Your task to perform on an android device: Go to location settings Image 0: 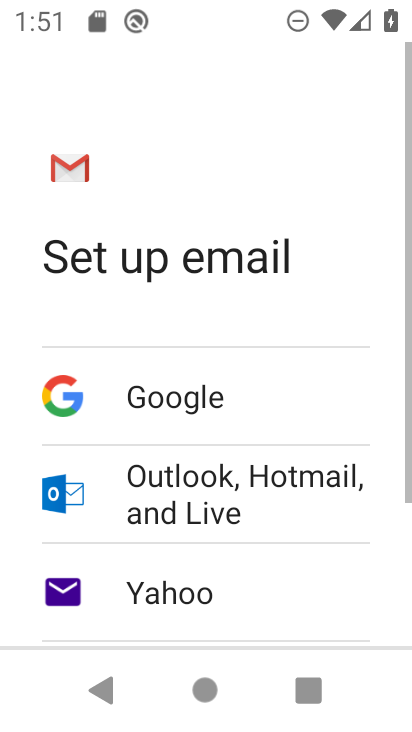
Step 0: drag from (243, 401) to (410, 695)
Your task to perform on an android device: Go to location settings Image 1: 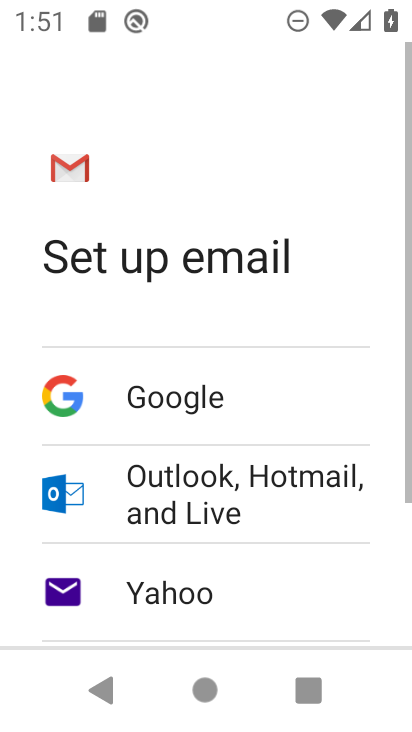
Step 1: press home button
Your task to perform on an android device: Go to location settings Image 2: 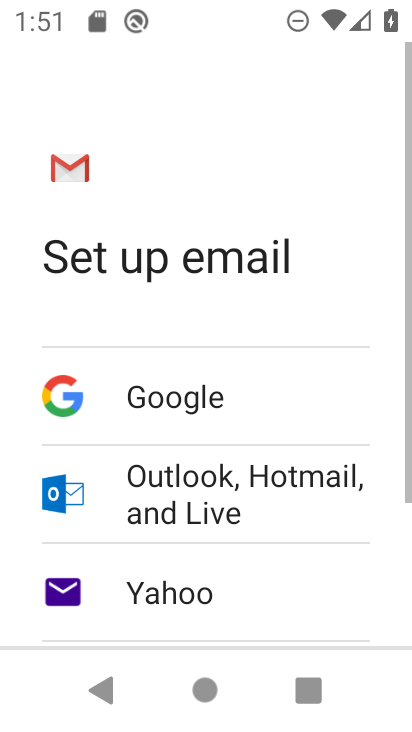
Step 2: drag from (410, 695) to (410, 596)
Your task to perform on an android device: Go to location settings Image 3: 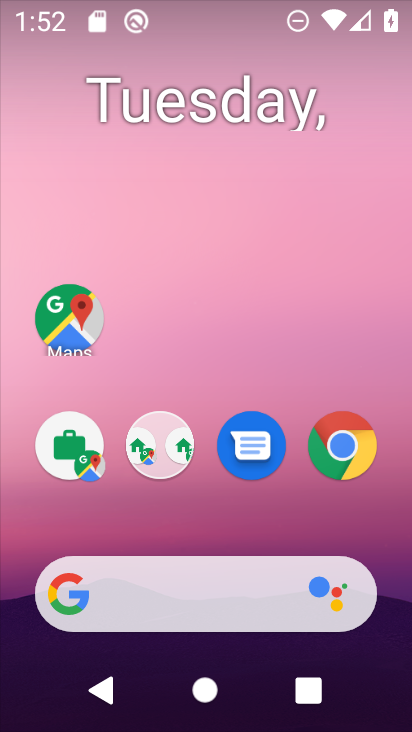
Step 3: click (66, 350)
Your task to perform on an android device: Go to location settings Image 4: 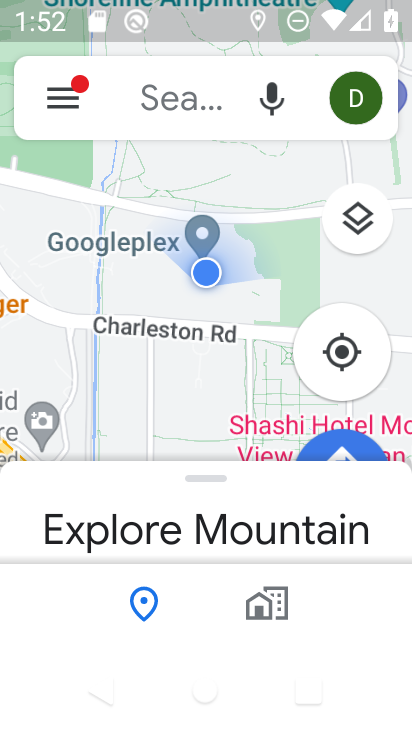
Step 4: click (82, 111)
Your task to perform on an android device: Go to location settings Image 5: 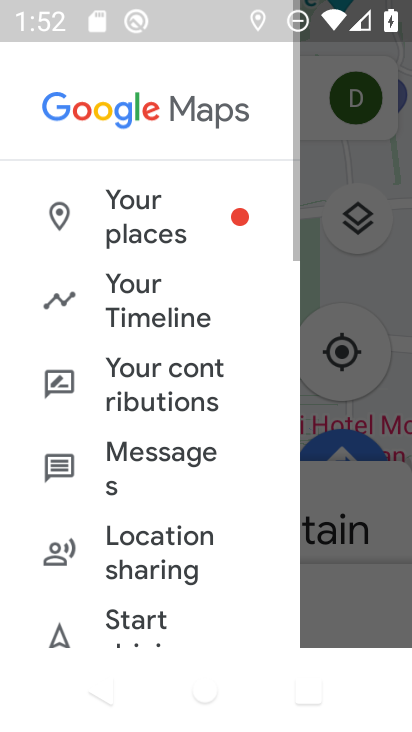
Step 5: drag from (155, 637) to (154, 228)
Your task to perform on an android device: Go to location settings Image 6: 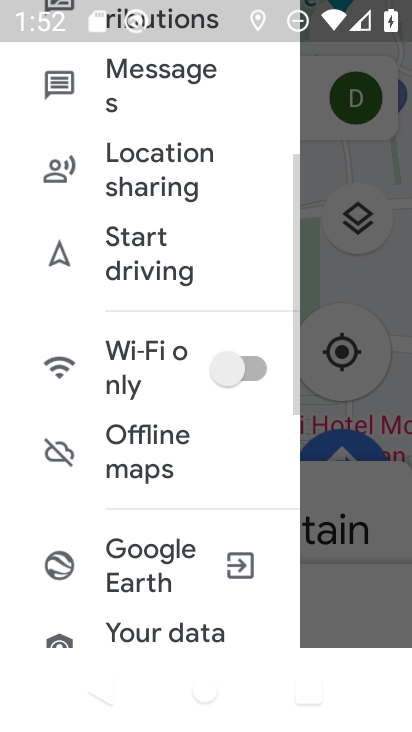
Step 6: drag from (144, 559) to (152, 101)
Your task to perform on an android device: Go to location settings Image 7: 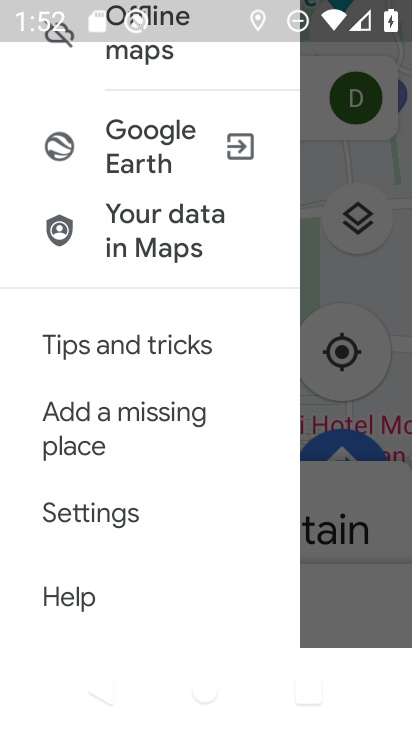
Step 7: click (130, 514)
Your task to perform on an android device: Go to location settings Image 8: 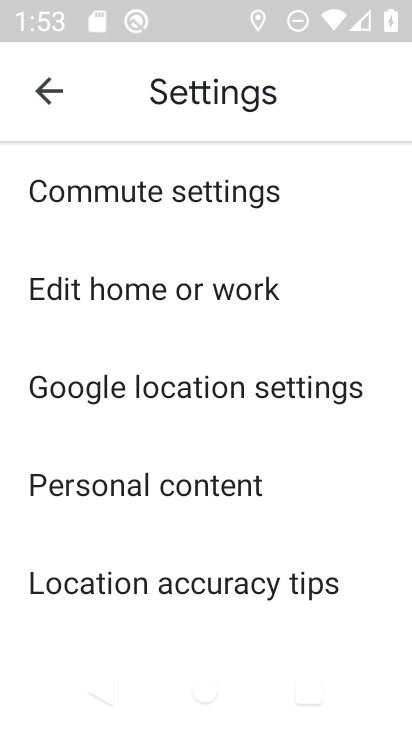
Step 8: task complete